Your task to perform on an android device: check storage Image 0: 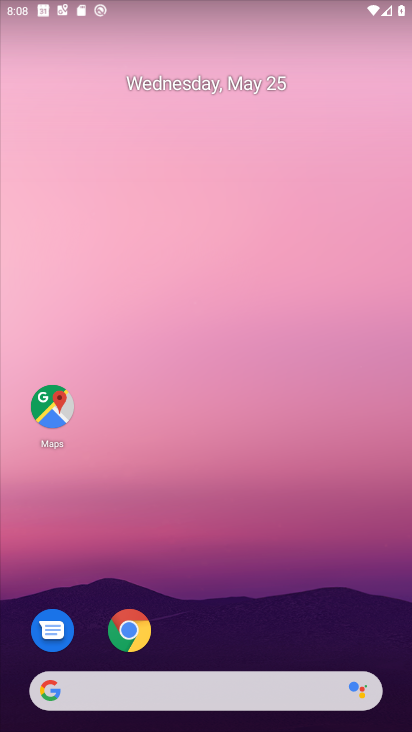
Step 0: drag from (254, 632) to (241, 275)
Your task to perform on an android device: check storage Image 1: 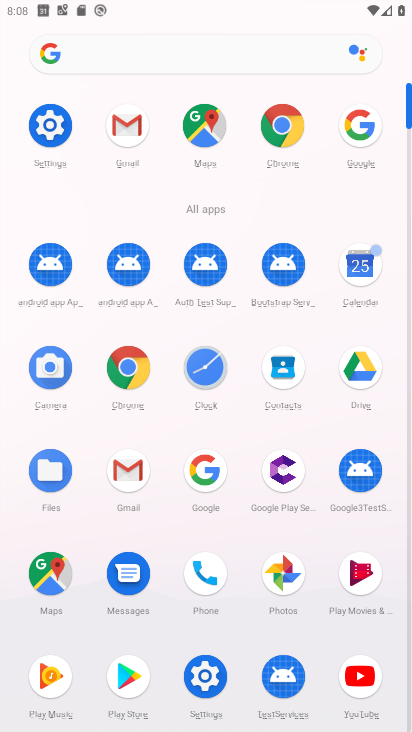
Step 1: click (51, 118)
Your task to perform on an android device: check storage Image 2: 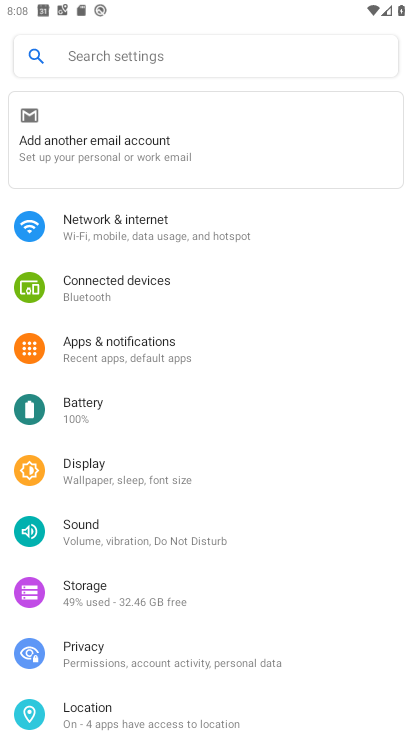
Step 2: click (103, 593)
Your task to perform on an android device: check storage Image 3: 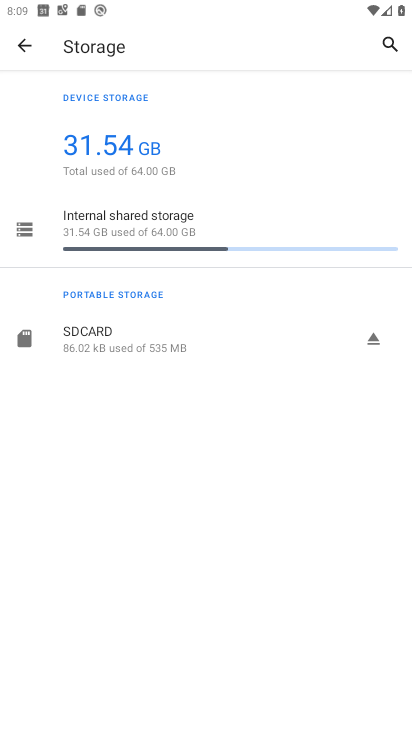
Step 3: task complete